Your task to perform on an android device: turn off data saver in the chrome app Image 0: 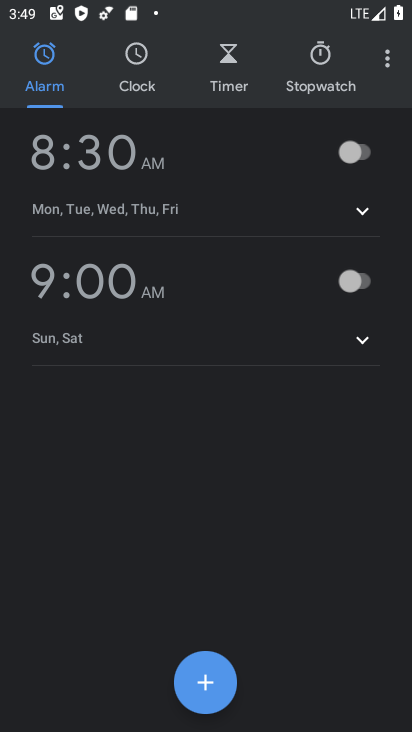
Step 0: task impossible